Your task to perform on an android device: uninstall "McDonald's" Image 0: 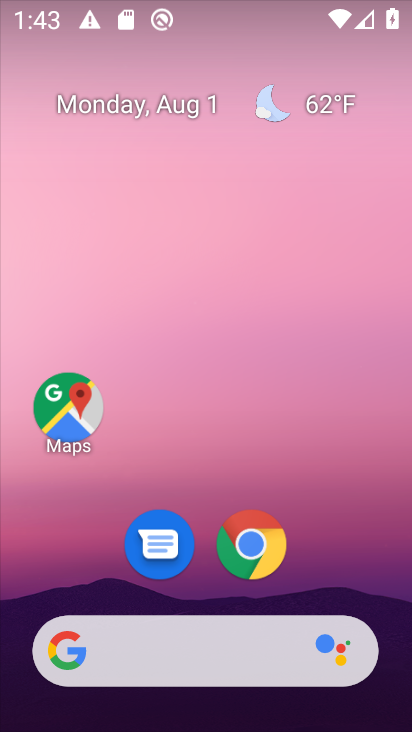
Step 0: drag from (375, 598) to (207, 54)
Your task to perform on an android device: uninstall "McDonald's" Image 1: 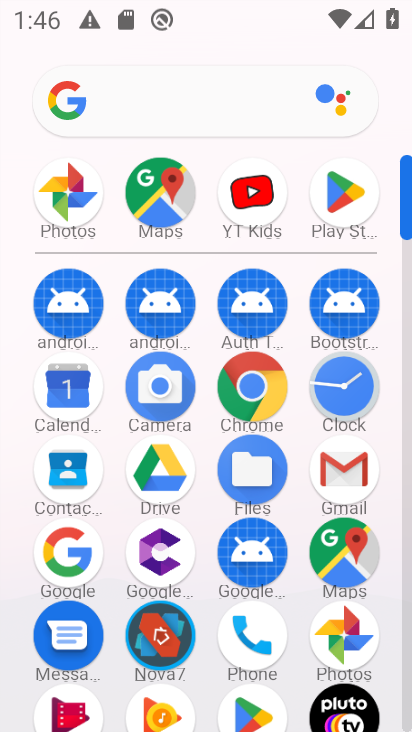
Step 1: click (337, 187)
Your task to perform on an android device: uninstall "McDonald's" Image 2: 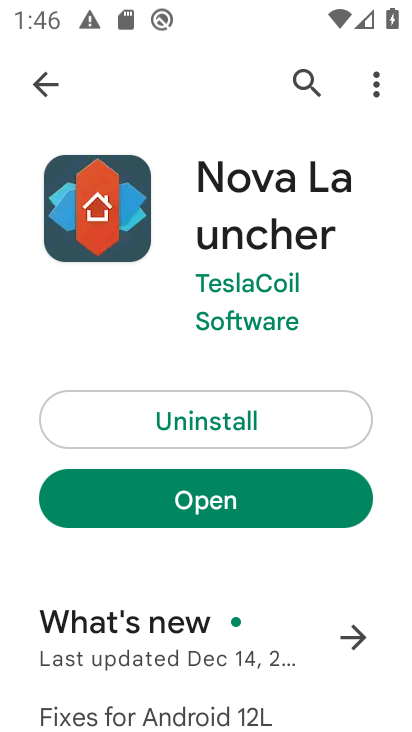
Step 2: press back button
Your task to perform on an android device: uninstall "McDonald's" Image 3: 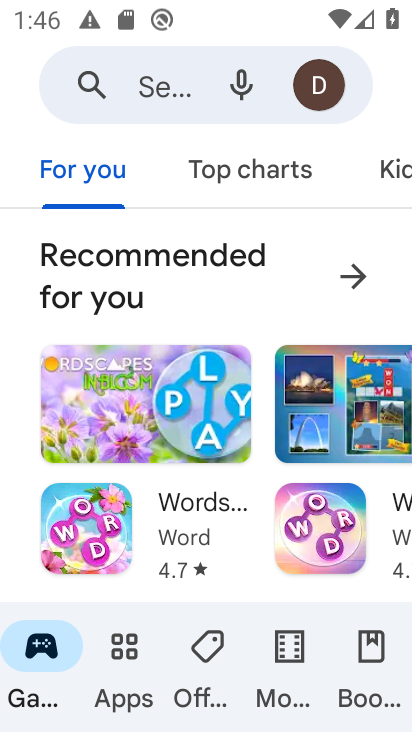
Step 3: click (157, 99)
Your task to perform on an android device: uninstall "McDonald's" Image 4: 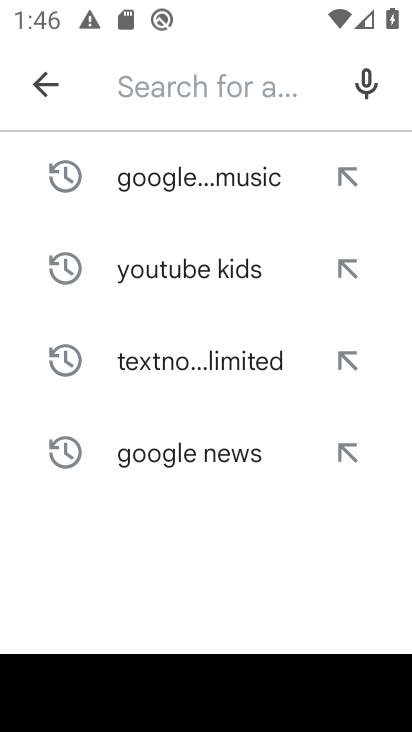
Step 4: type "McDonald's"
Your task to perform on an android device: uninstall "McDonald's" Image 5: 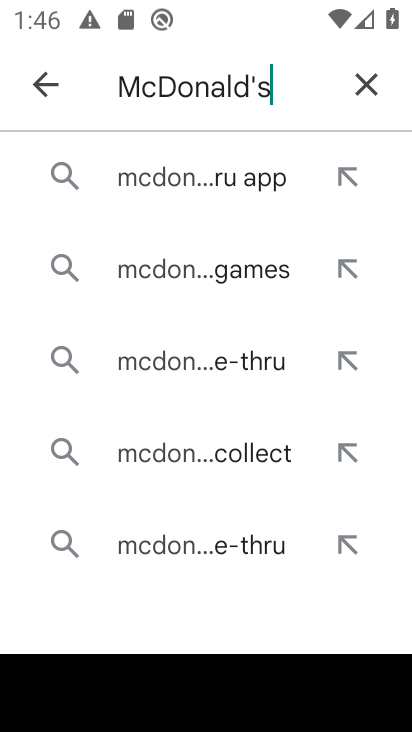
Step 5: click (203, 183)
Your task to perform on an android device: uninstall "McDonald's" Image 6: 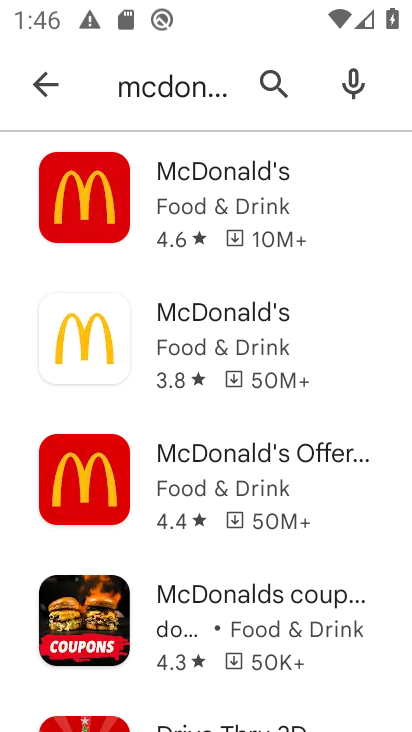
Step 6: task complete